Your task to perform on an android device: check google app version Image 0: 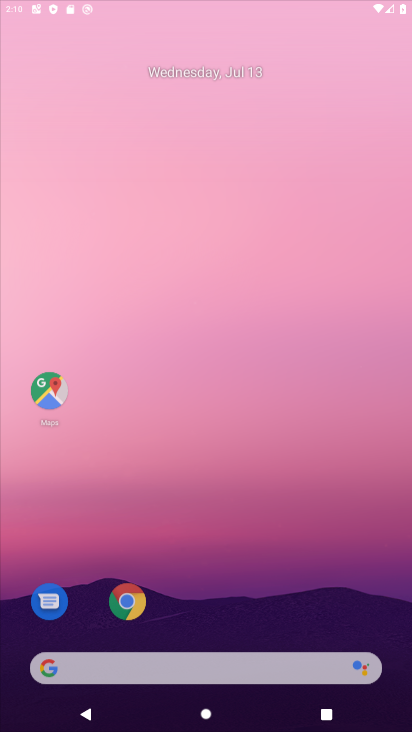
Step 0: drag from (200, 512) to (198, 69)
Your task to perform on an android device: check google app version Image 1: 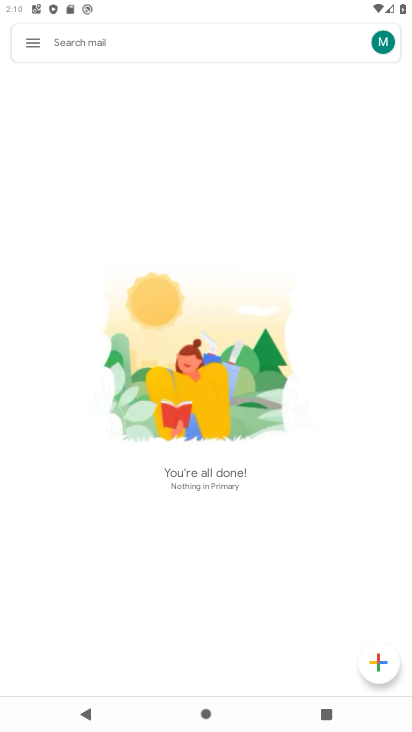
Step 1: press home button
Your task to perform on an android device: check google app version Image 2: 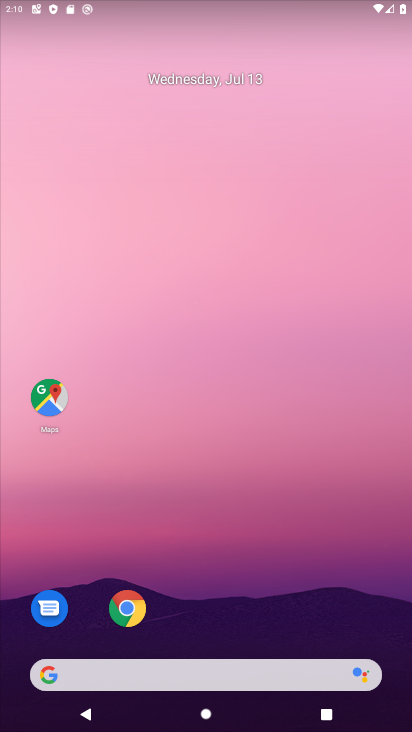
Step 2: click (155, 670)
Your task to perform on an android device: check google app version Image 3: 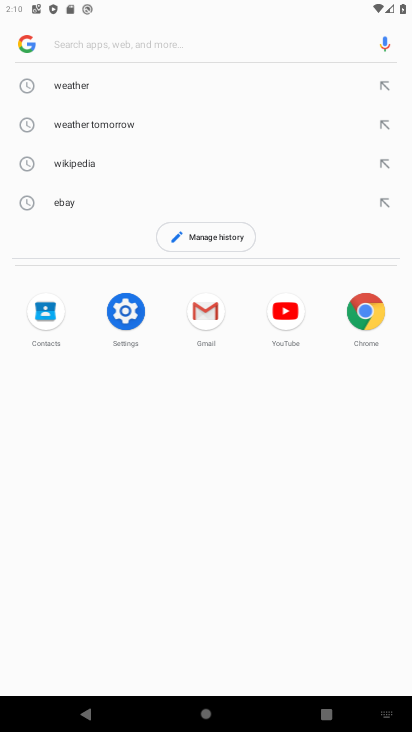
Step 3: click (66, 80)
Your task to perform on an android device: check google app version Image 4: 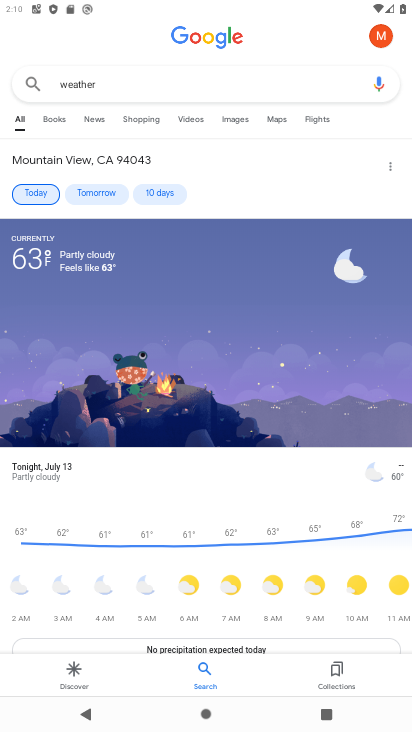
Step 4: press back button
Your task to perform on an android device: check google app version Image 5: 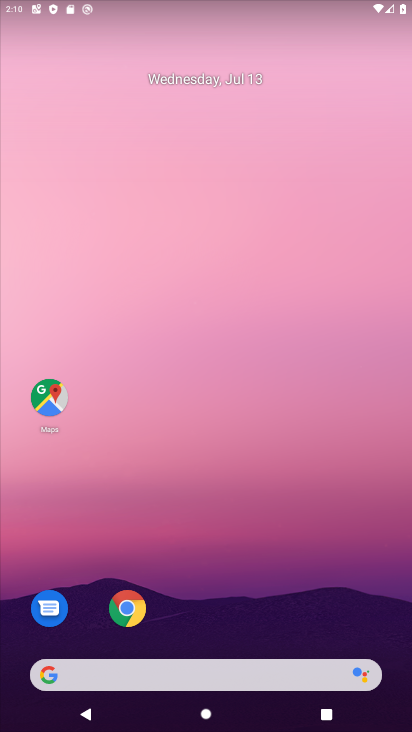
Step 5: click (50, 680)
Your task to perform on an android device: check google app version Image 6: 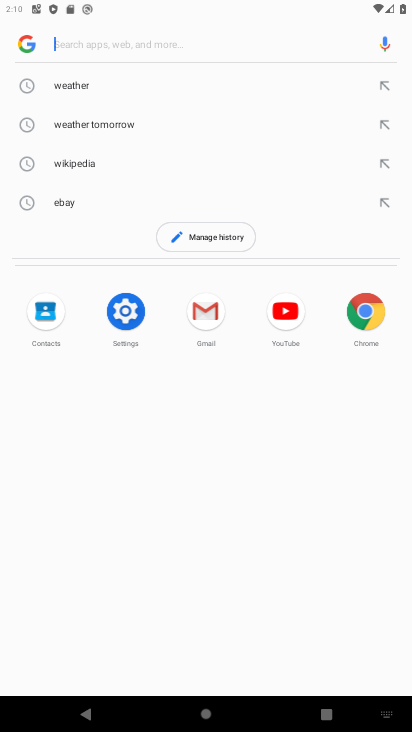
Step 6: click (20, 44)
Your task to perform on an android device: check google app version Image 7: 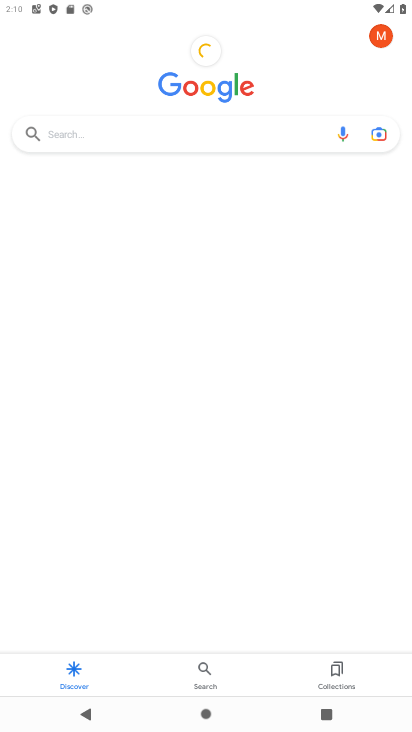
Step 7: click (376, 43)
Your task to perform on an android device: check google app version Image 8: 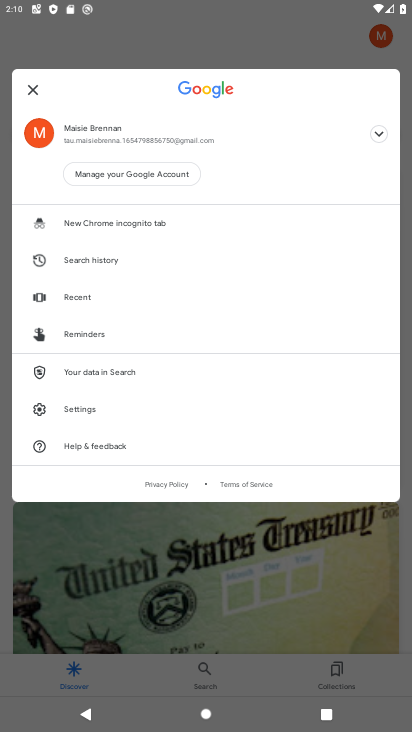
Step 8: click (70, 405)
Your task to perform on an android device: check google app version Image 9: 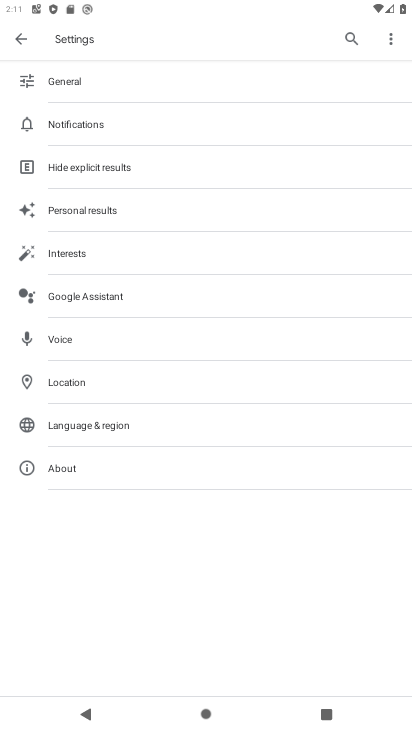
Step 9: click (52, 472)
Your task to perform on an android device: check google app version Image 10: 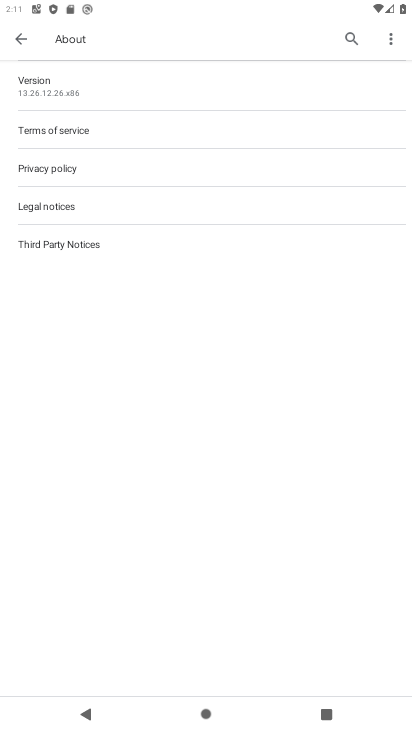
Step 10: task complete